Your task to perform on an android device: open the mobile data screen to see how much data has been used Image 0: 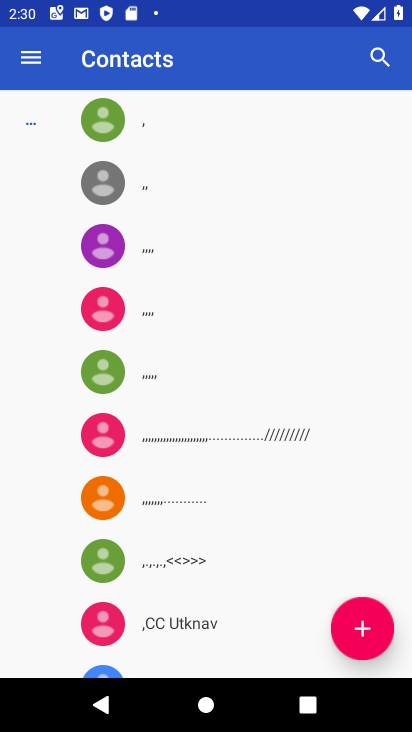
Step 0: press home button
Your task to perform on an android device: open the mobile data screen to see how much data has been used Image 1: 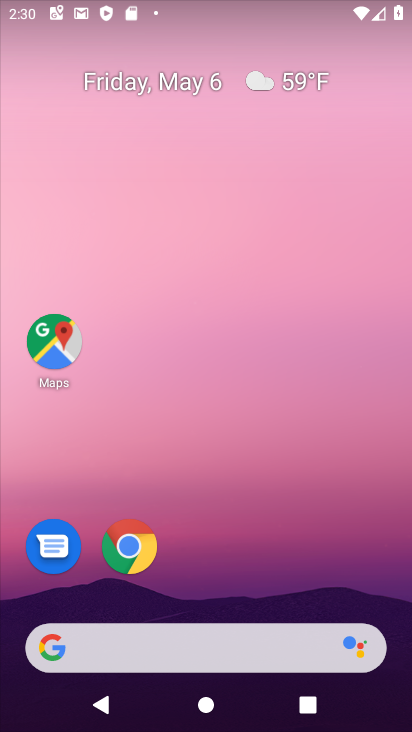
Step 1: drag from (244, 526) to (257, 84)
Your task to perform on an android device: open the mobile data screen to see how much data has been used Image 2: 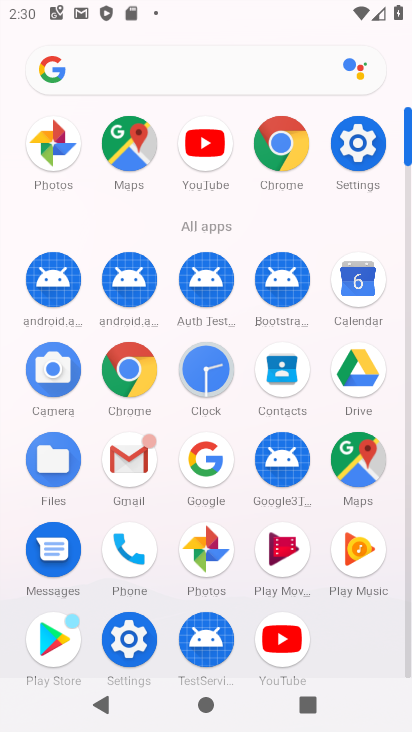
Step 2: click (356, 158)
Your task to perform on an android device: open the mobile data screen to see how much data has been used Image 3: 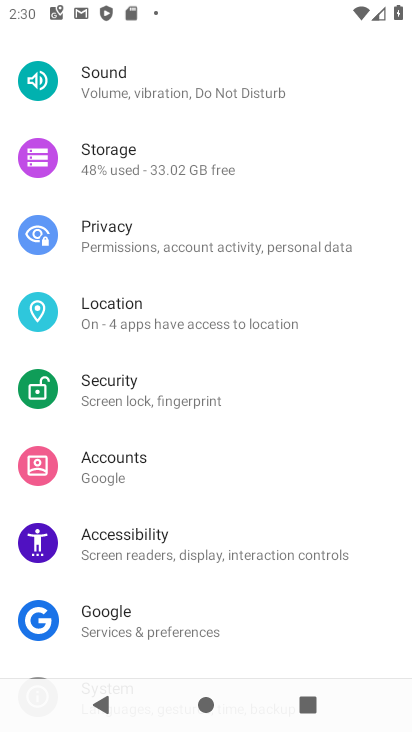
Step 3: drag from (228, 165) to (256, 517)
Your task to perform on an android device: open the mobile data screen to see how much data has been used Image 4: 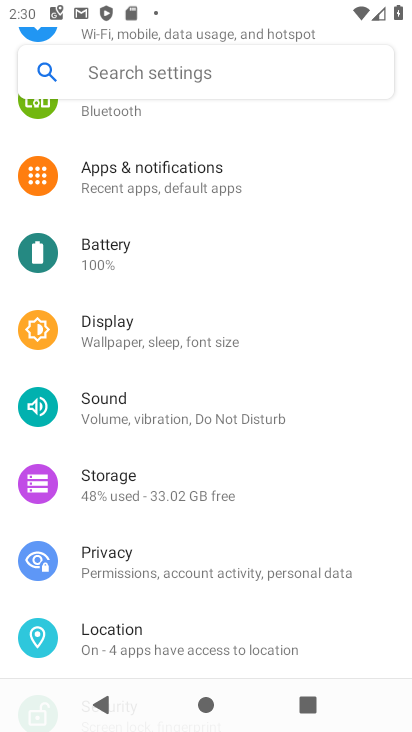
Step 4: drag from (217, 272) to (237, 591)
Your task to perform on an android device: open the mobile data screen to see how much data has been used Image 5: 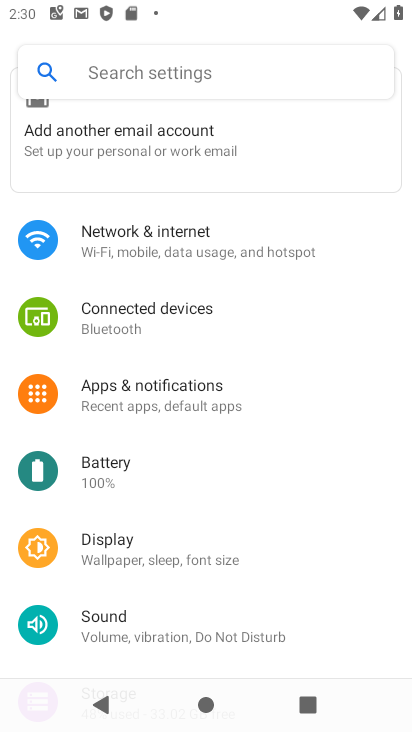
Step 5: click (210, 244)
Your task to perform on an android device: open the mobile data screen to see how much data has been used Image 6: 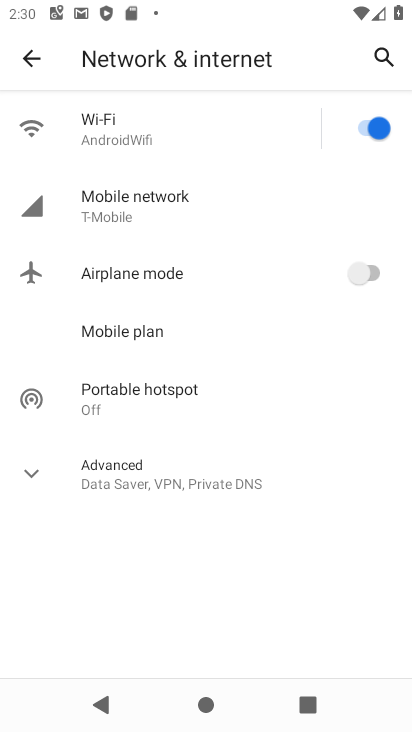
Step 6: click (121, 201)
Your task to perform on an android device: open the mobile data screen to see how much data has been used Image 7: 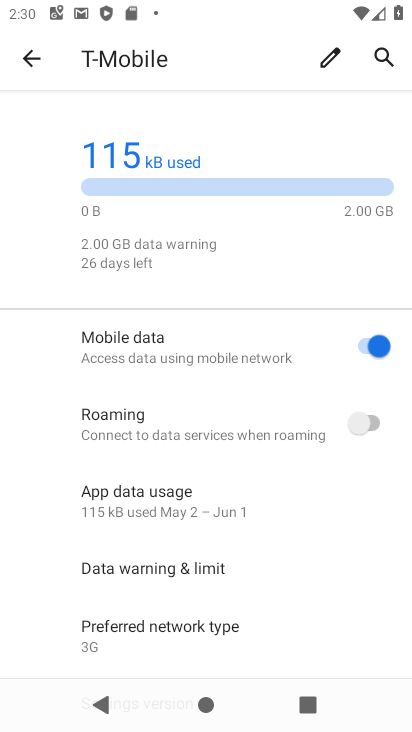
Step 7: click (169, 511)
Your task to perform on an android device: open the mobile data screen to see how much data has been used Image 8: 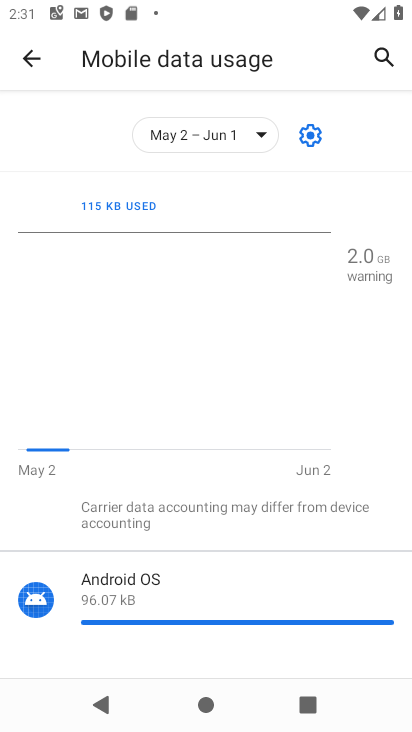
Step 8: task complete